Your task to perform on an android device: create a new album in the google photos Image 0: 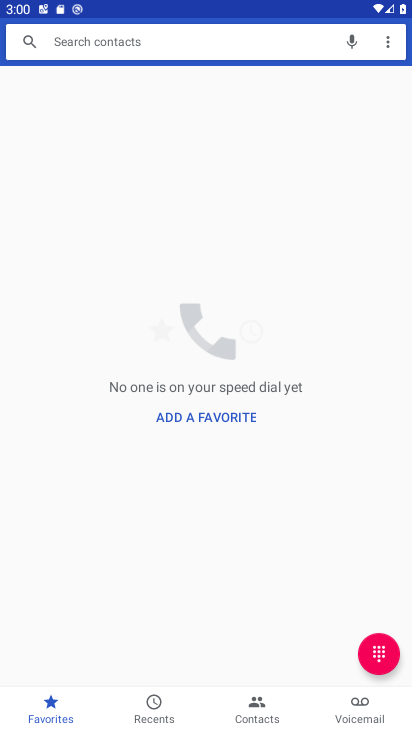
Step 0: press home button
Your task to perform on an android device: create a new album in the google photos Image 1: 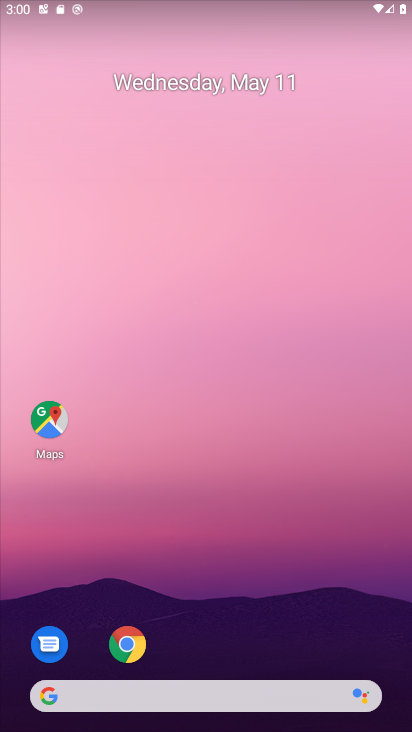
Step 1: drag from (217, 660) to (196, 104)
Your task to perform on an android device: create a new album in the google photos Image 2: 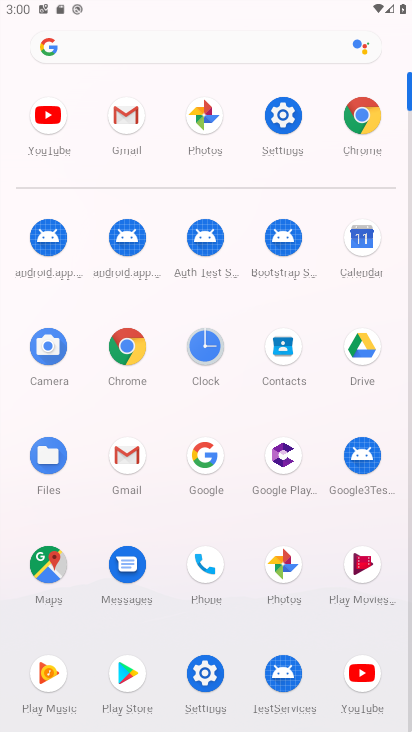
Step 2: click (274, 562)
Your task to perform on an android device: create a new album in the google photos Image 3: 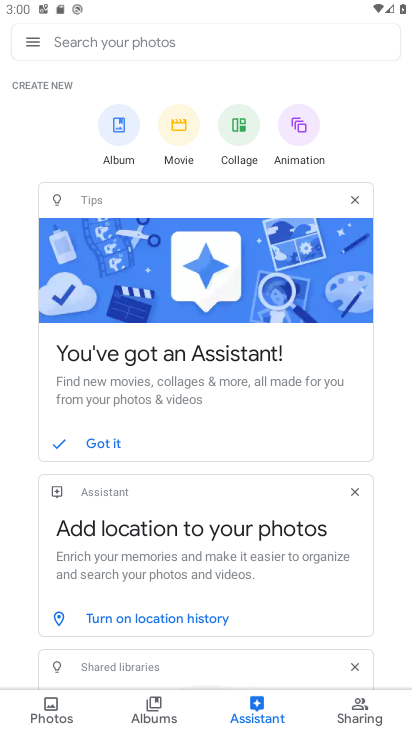
Step 3: press home button
Your task to perform on an android device: create a new album in the google photos Image 4: 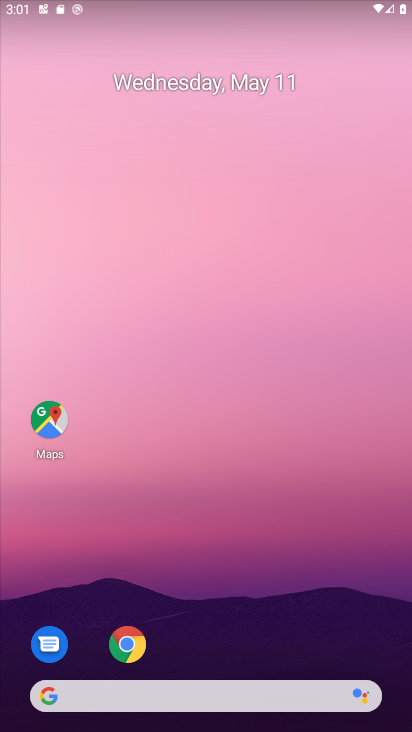
Step 4: drag from (200, 664) to (283, 44)
Your task to perform on an android device: create a new album in the google photos Image 5: 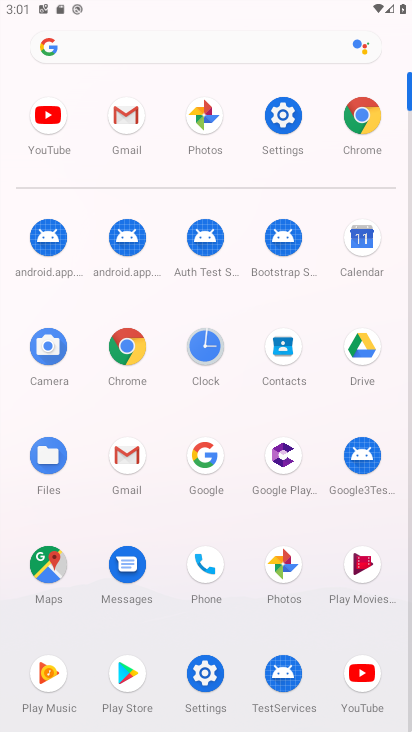
Step 5: click (300, 567)
Your task to perform on an android device: create a new album in the google photos Image 6: 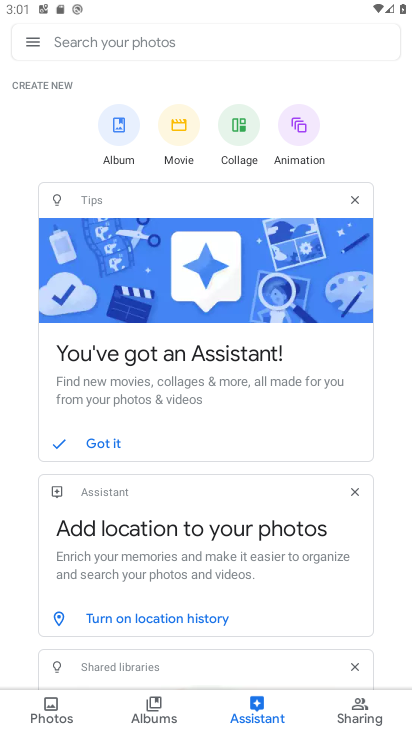
Step 6: click (38, 708)
Your task to perform on an android device: create a new album in the google photos Image 7: 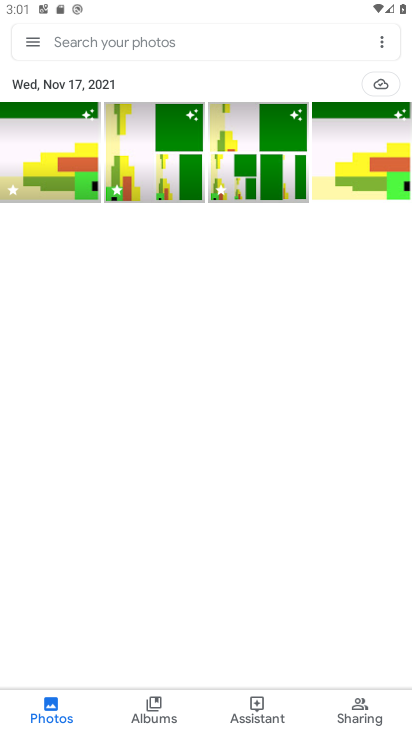
Step 7: click (78, 181)
Your task to perform on an android device: create a new album in the google photos Image 8: 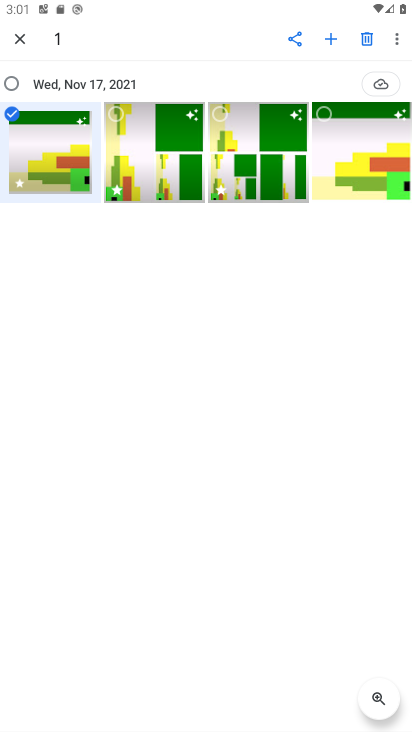
Step 8: click (156, 167)
Your task to perform on an android device: create a new album in the google photos Image 9: 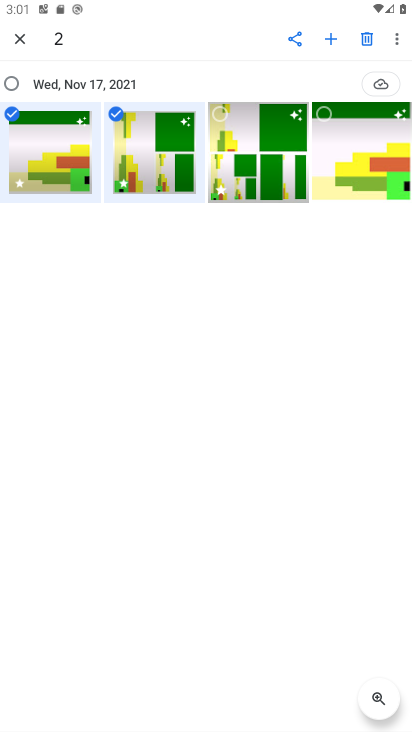
Step 9: click (331, 41)
Your task to perform on an android device: create a new album in the google photos Image 10: 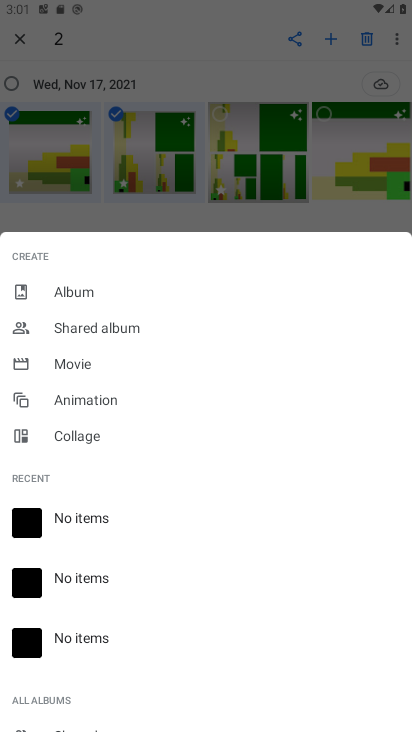
Step 10: click (56, 284)
Your task to perform on an android device: create a new album in the google photos Image 11: 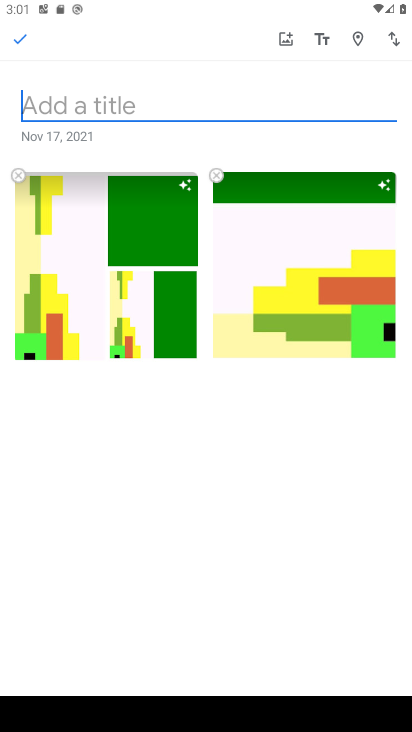
Step 11: type "kiop"
Your task to perform on an android device: create a new album in the google photos Image 12: 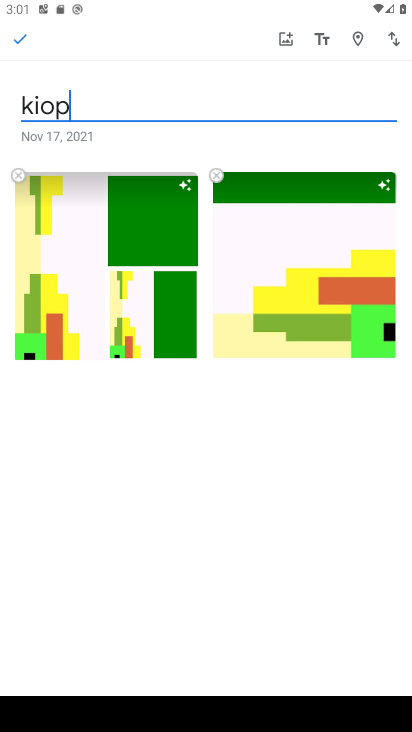
Step 12: type ""
Your task to perform on an android device: create a new album in the google photos Image 13: 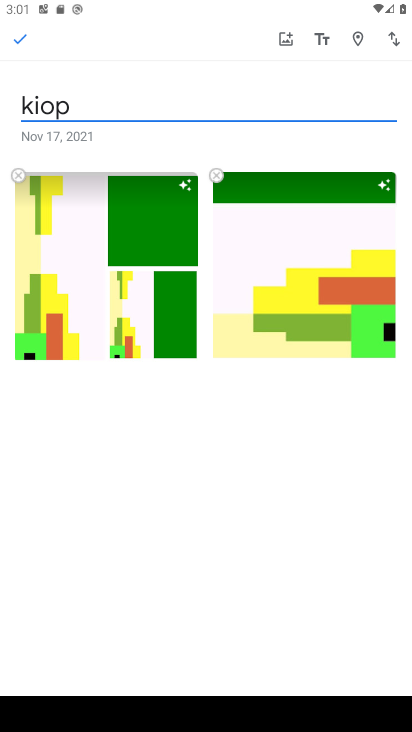
Step 13: click (19, 39)
Your task to perform on an android device: create a new album in the google photos Image 14: 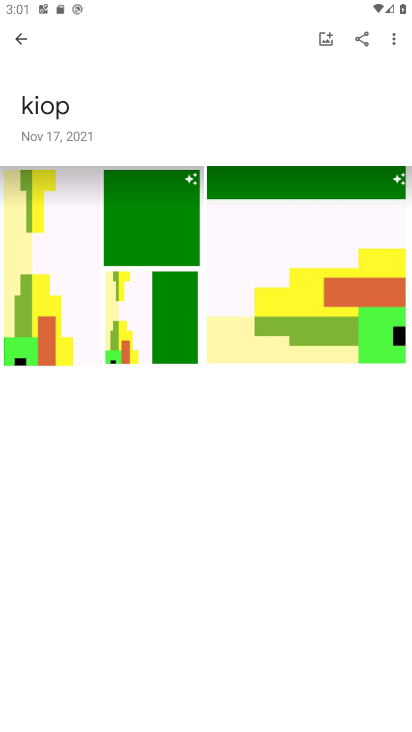
Step 14: task complete